Your task to perform on an android device: stop showing notifications on the lock screen Image 0: 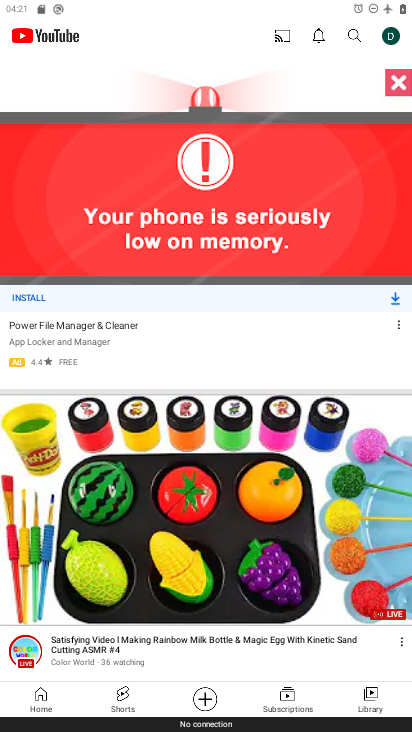
Step 0: press home button
Your task to perform on an android device: stop showing notifications on the lock screen Image 1: 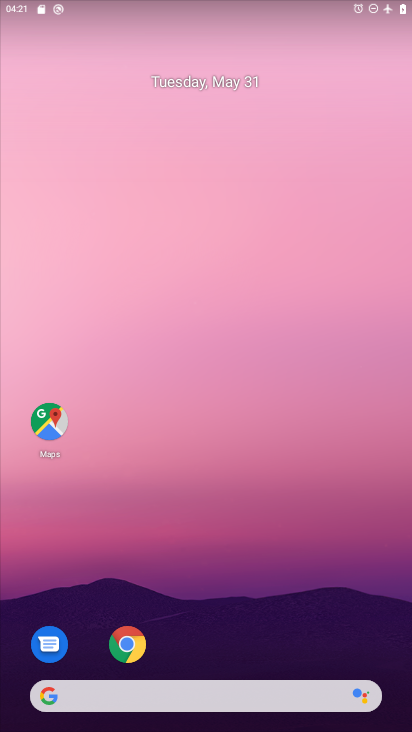
Step 1: drag from (262, 610) to (240, 230)
Your task to perform on an android device: stop showing notifications on the lock screen Image 2: 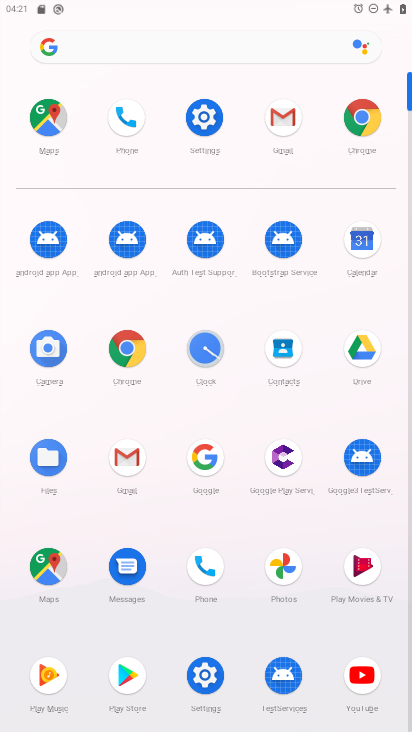
Step 2: click (211, 125)
Your task to perform on an android device: stop showing notifications on the lock screen Image 3: 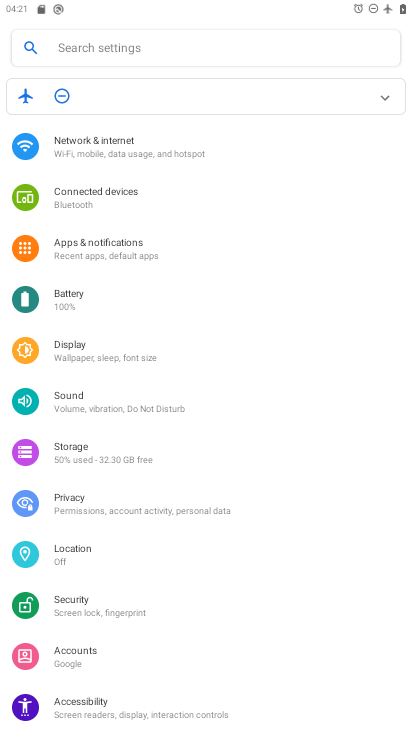
Step 3: click (116, 256)
Your task to perform on an android device: stop showing notifications on the lock screen Image 4: 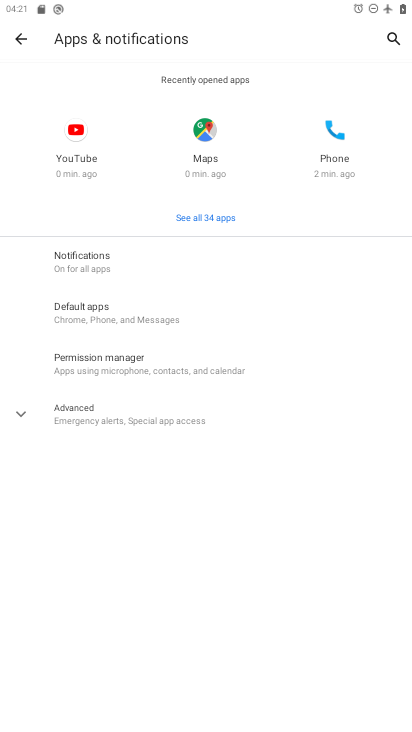
Step 4: click (127, 272)
Your task to perform on an android device: stop showing notifications on the lock screen Image 5: 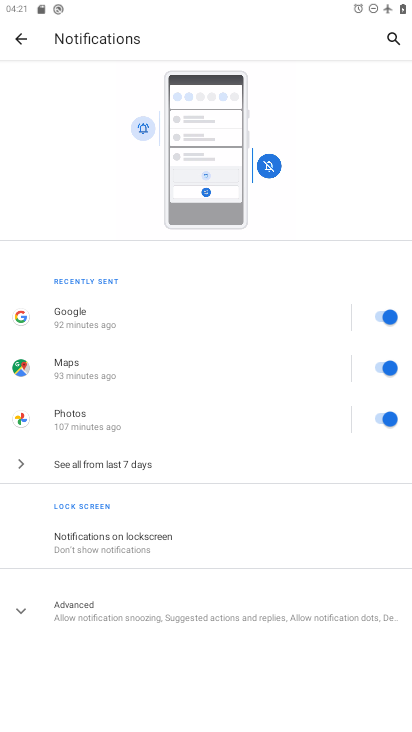
Step 5: click (155, 543)
Your task to perform on an android device: stop showing notifications on the lock screen Image 6: 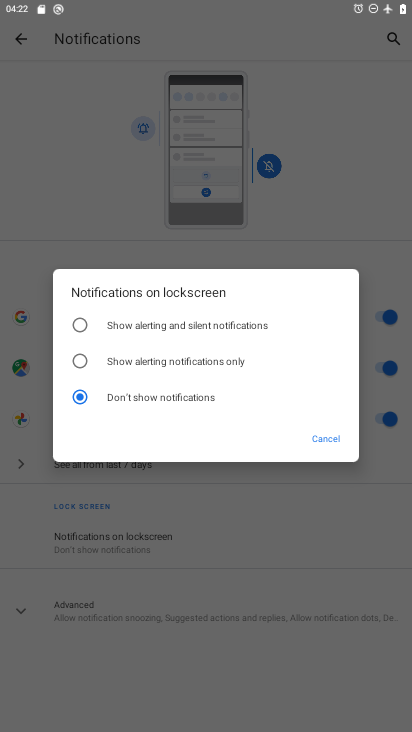
Step 6: task complete